Your task to perform on an android device: Go to Google Image 0: 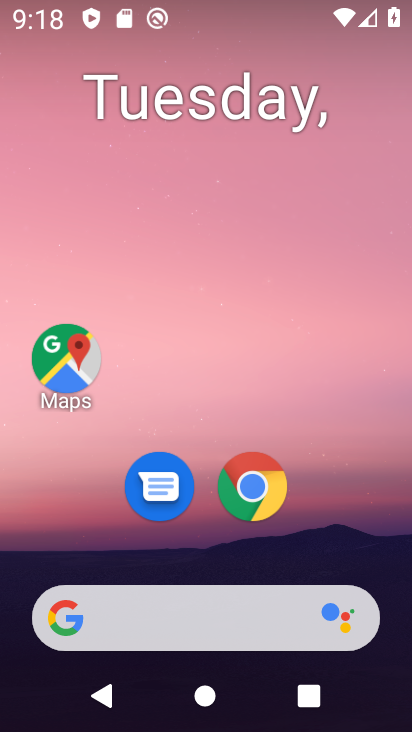
Step 0: press home button
Your task to perform on an android device: Go to Google Image 1: 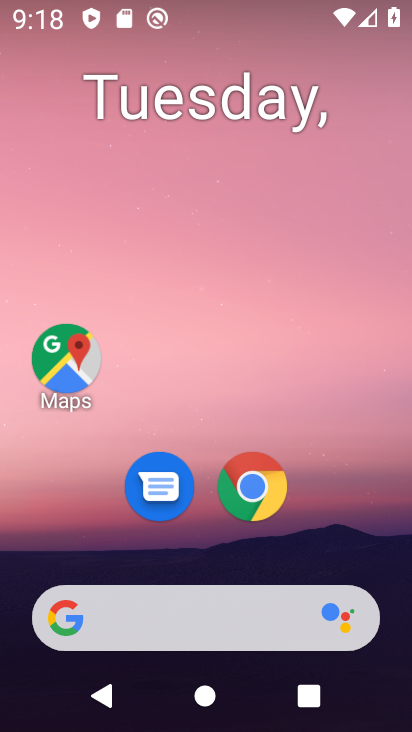
Step 1: drag from (366, 542) to (351, 143)
Your task to perform on an android device: Go to Google Image 2: 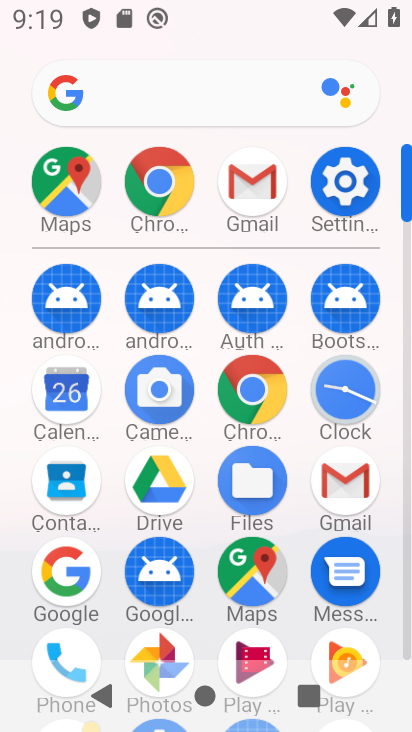
Step 2: click (64, 586)
Your task to perform on an android device: Go to Google Image 3: 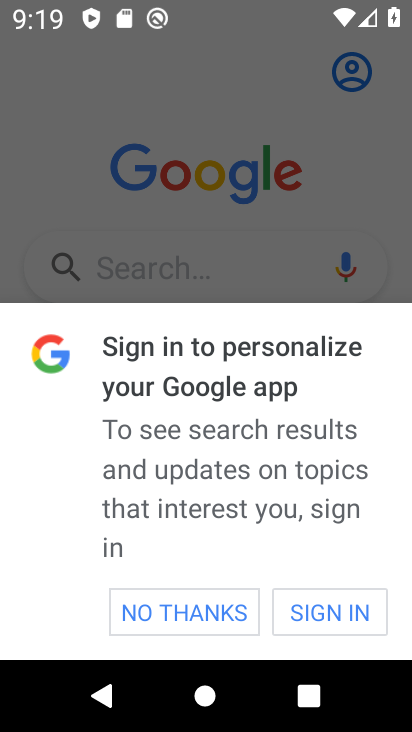
Step 3: click (142, 605)
Your task to perform on an android device: Go to Google Image 4: 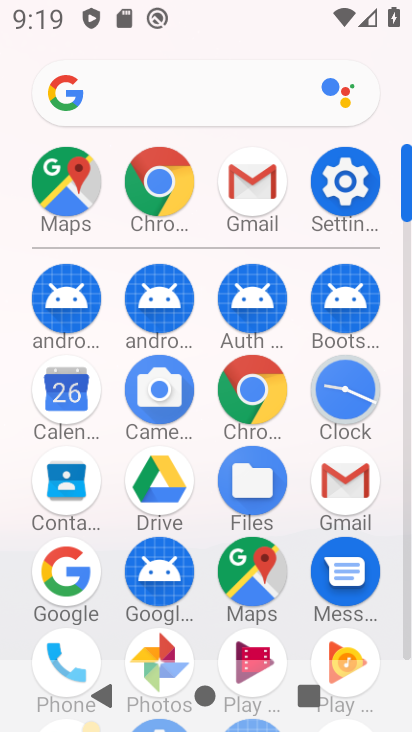
Step 4: click (82, 572)
Your task to perform on an android device: Go to Google Image 5: 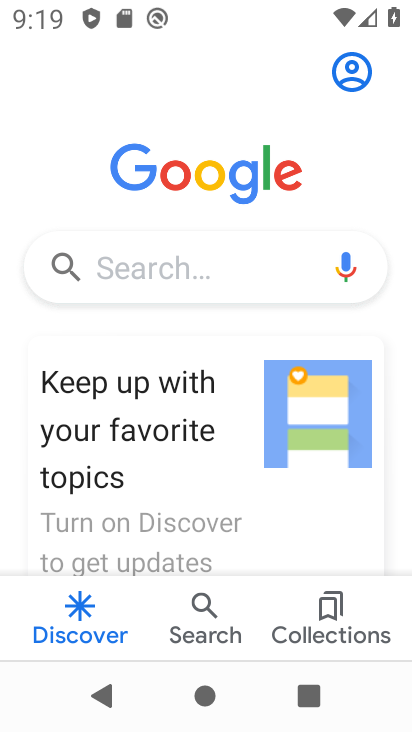
Step 5: task complete